Your task to perform on an android device: Open Google Chrome Image 0: 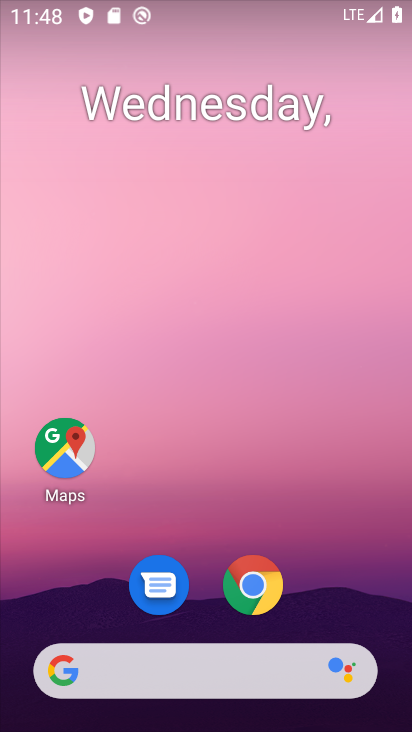
Step 0: click (269, 578)
Your task to perform on an android device: Open Google Chrome Image 1: 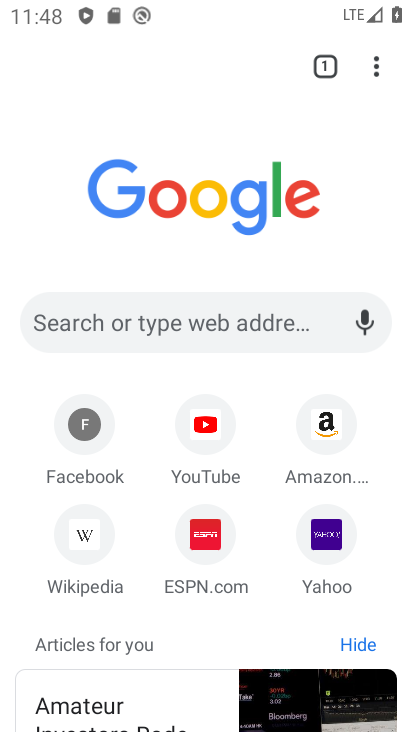
Step 1: task complete